Your task to perform on an android device: What's the weather? Image 0: 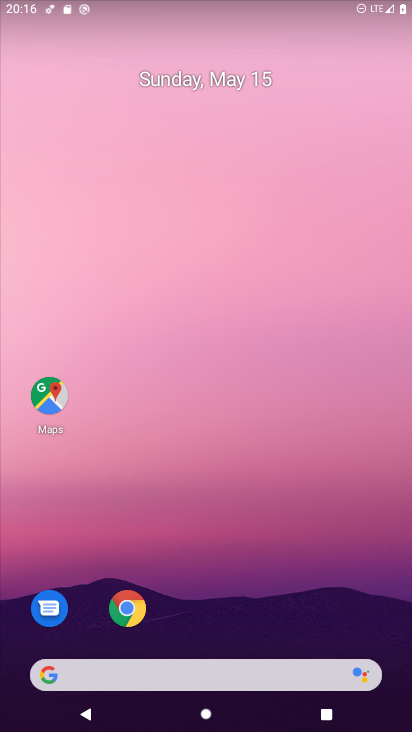
Step 0: drag from (210, 601) to (187, 88)
Your task to perform on an android device: What's the weather? Image 1: 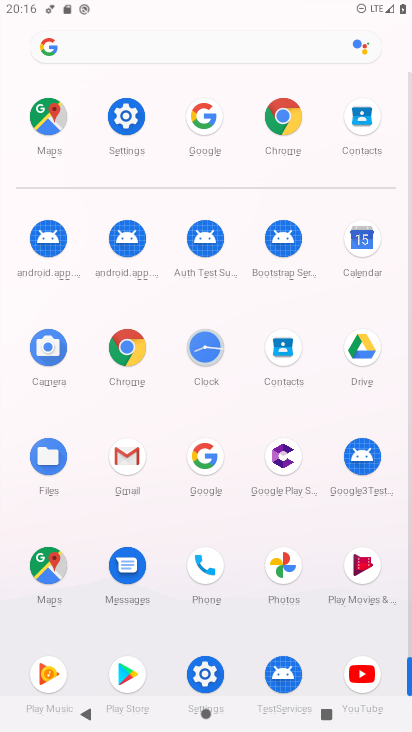
Step 1: click (210, 458)
Your task to perform on an android device: What's the weather? Image 2: 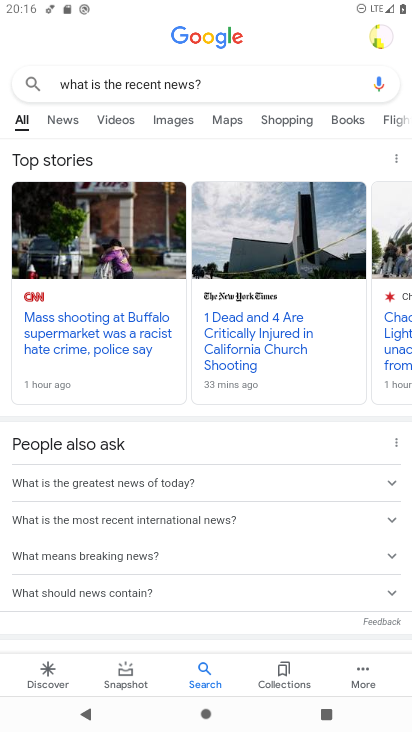
Step 2: click (272, 89)
Your task to perform on an android device: What's the weather? Image 3: 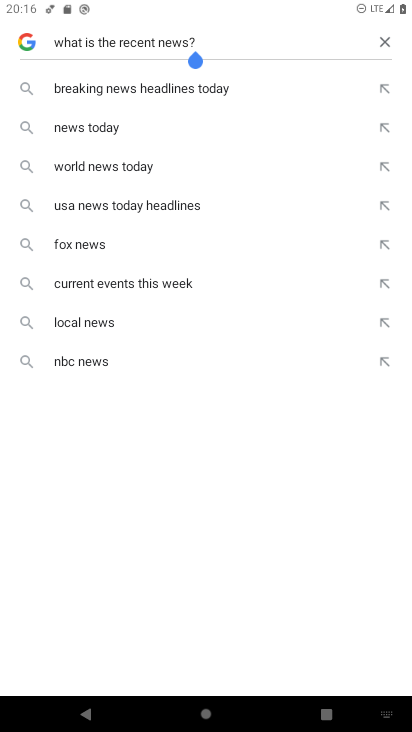
Step 3: click (376, 31)
Your task to perform on an android device: What's the weather? Image 4: 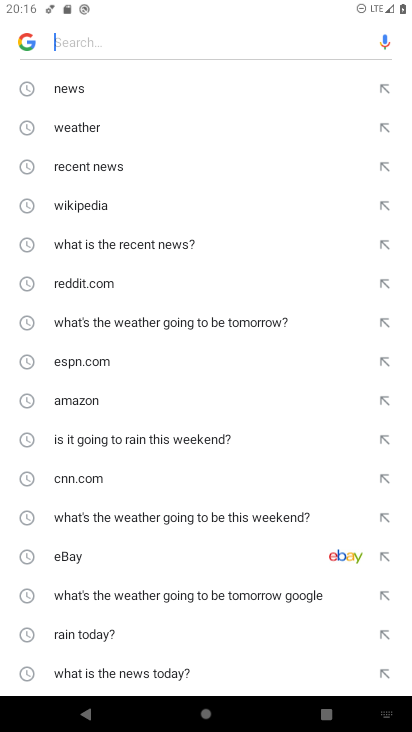
Step 4: click (83, 132)
Your task to perform on an android device: What's the weather? Image 5: 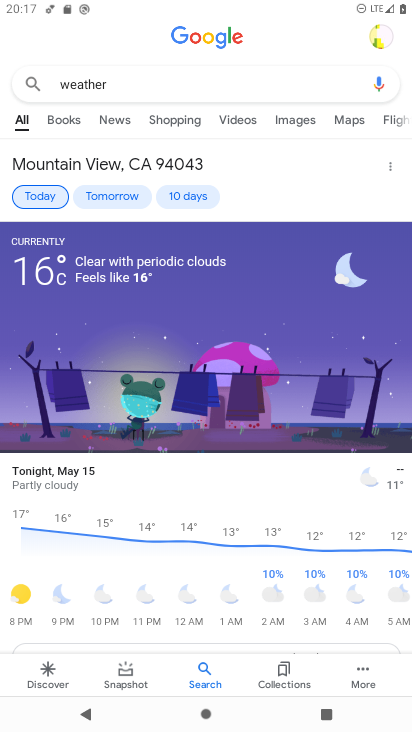
Step 5: task complete